Your task to perform on an android device: turn on bluetooth scan Image 0: 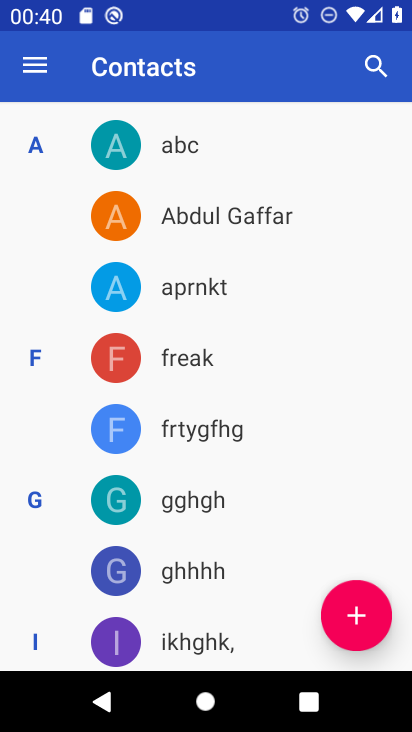
Step 0: press home button
Your task to perform on an android device: turn on bluetooth scan Image 1: 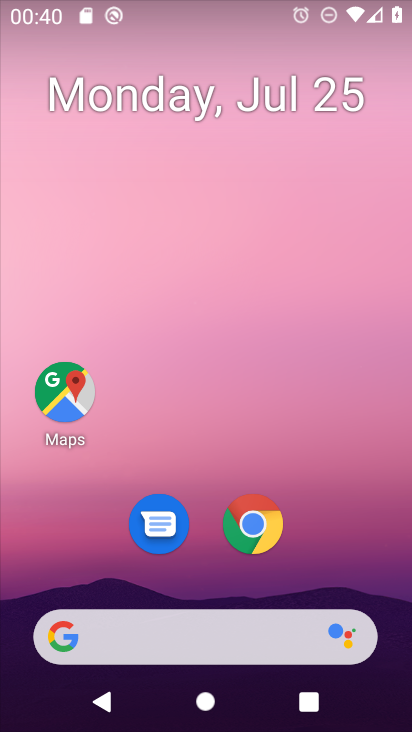
Step 1: drag from (225, 638) to (357, 137)
Your task to perform on an android device: turn on bluetooth scan Image 2: 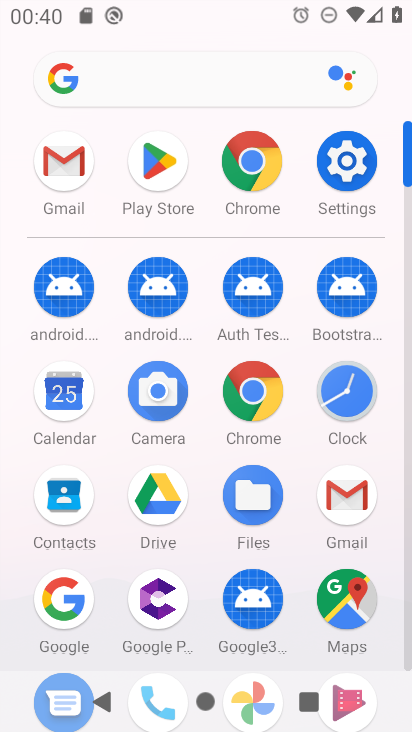
Step 2: click (357, 166)
Your task to perform on an android device: turn on bluetooth scan Image 3: 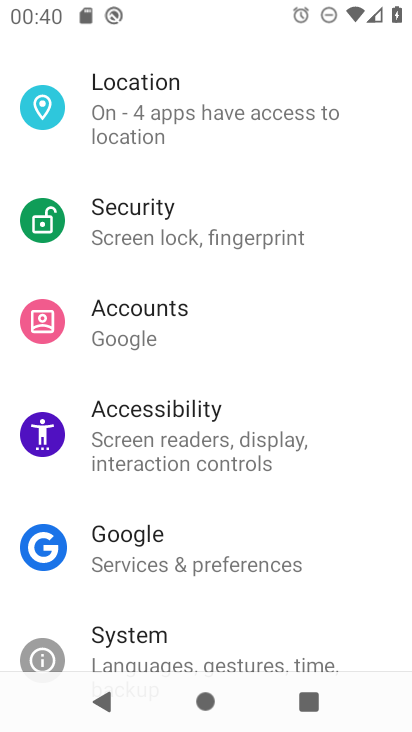
Step 3: click (173, 123)
Your task to perform on an android device: turn on bluetooth scan Image 4: 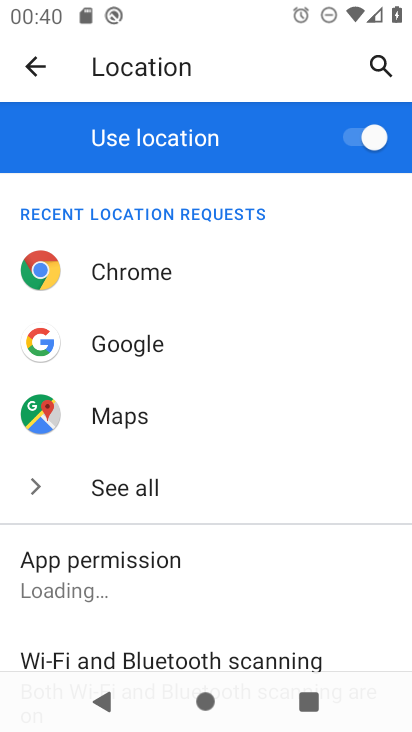
Step 4: drag from (231, 647) to (327, 326)
Your task to perform on an android device: turn on bluetooth scan Image 5: 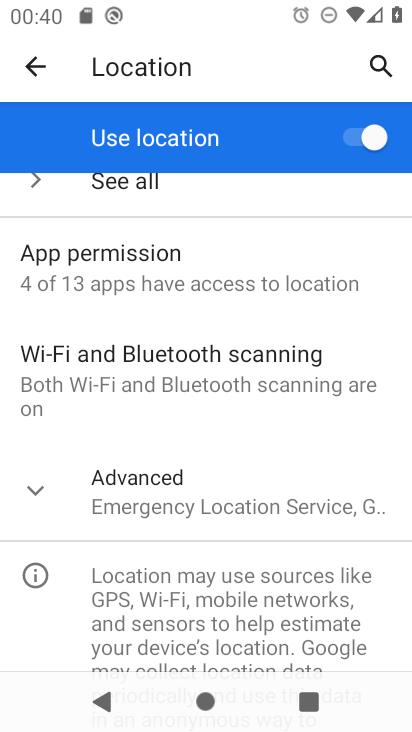
Step 5: click (213, 386)
Your task to perform on an android device: turn on bluetooth scan Image 6: 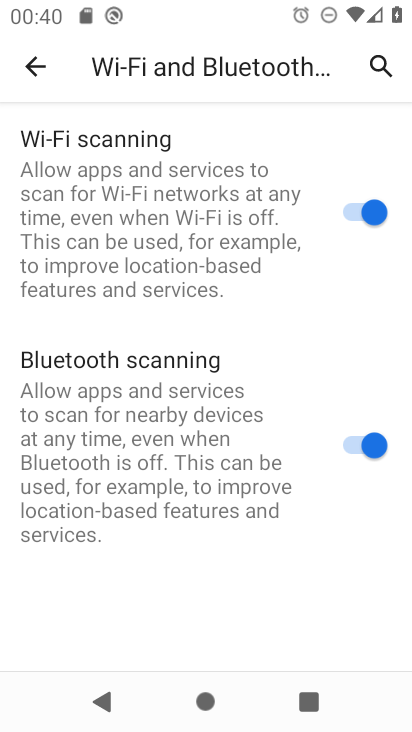
Step 6: task complete